Your task to perform on an android device: turn off location Image 0: 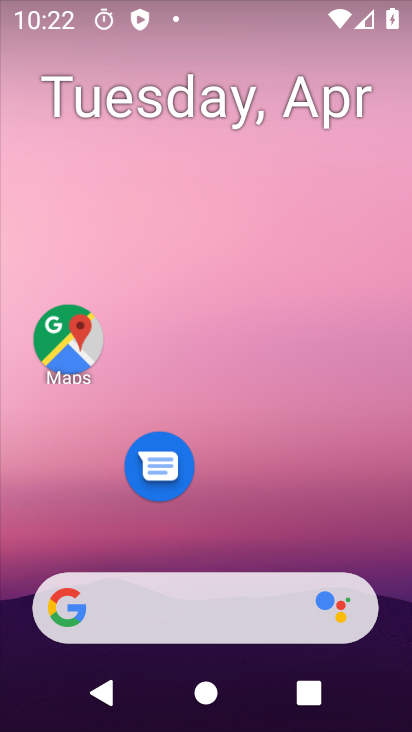
Step 0: drag from (315, 525) to (245, 163)
Your task to perform on an android device: turn off location Image 1: 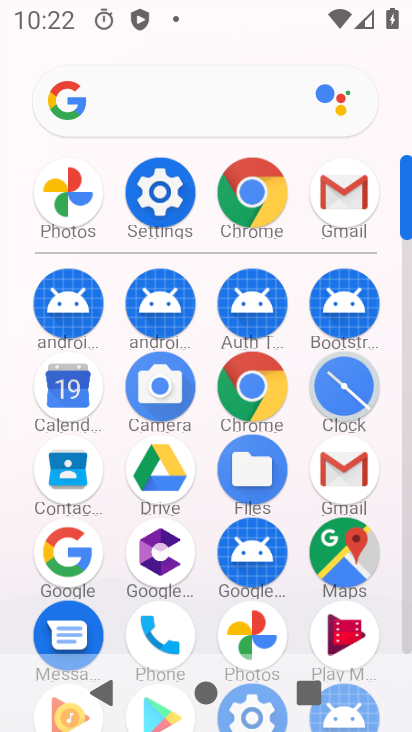
Step 1: click (179, 212)
Your task to perform on an android device: turn off location Image 2: 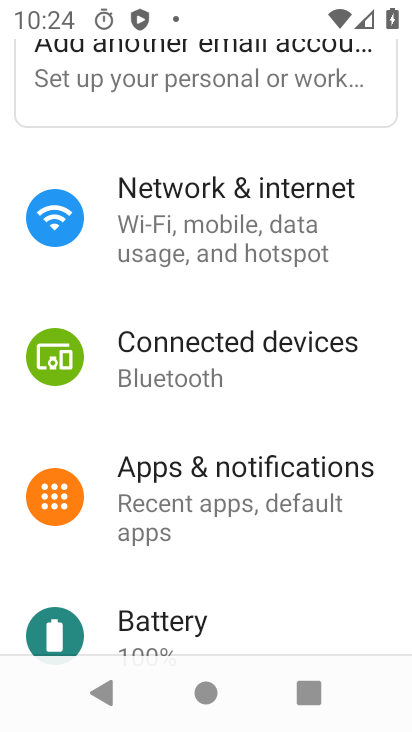
Step 2: click (226, 472)
Your task to perform on an android device: turn off location Image 3: 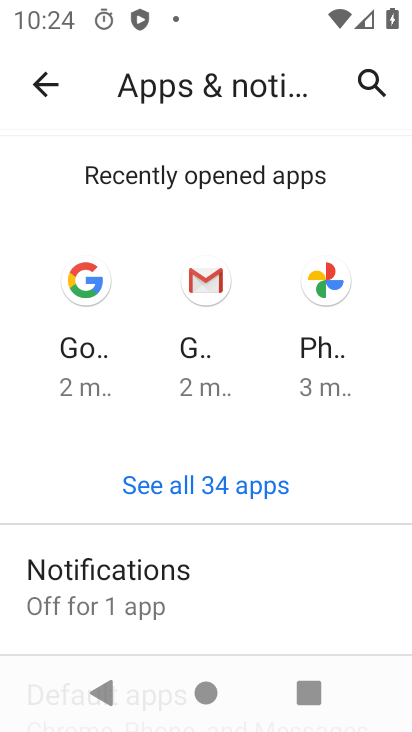
Step 3: drag from (150, 647) to (169, 338)
Your task to perform on an android device: turn off location Image 4: 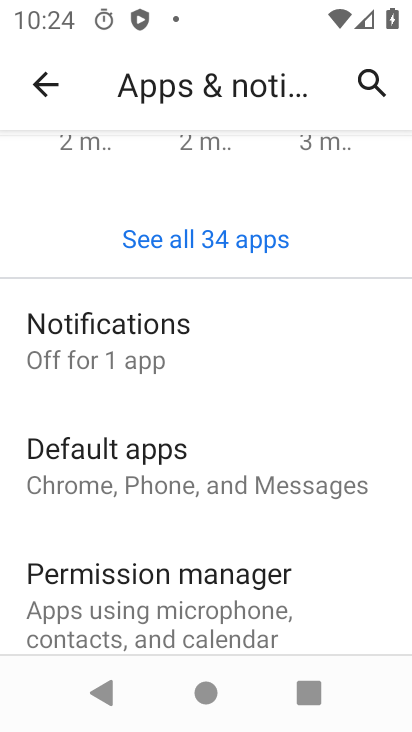
Step 4: click (85, 685)
Your task to perform on an android device: turn off location Image 5: 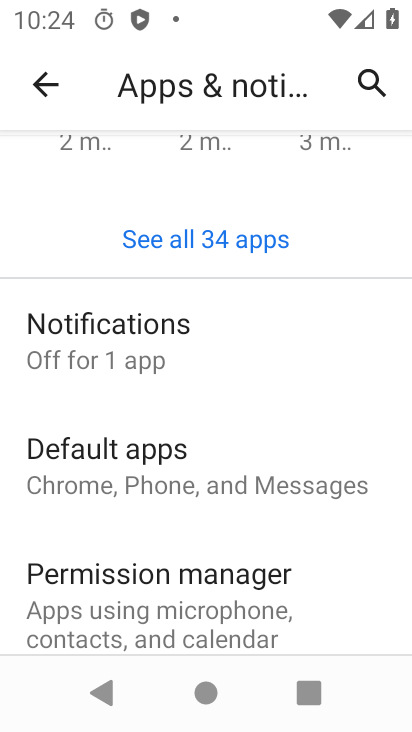
Step 5: click (94, 690)
Your task to perform on an android device: turn off location Image 6: 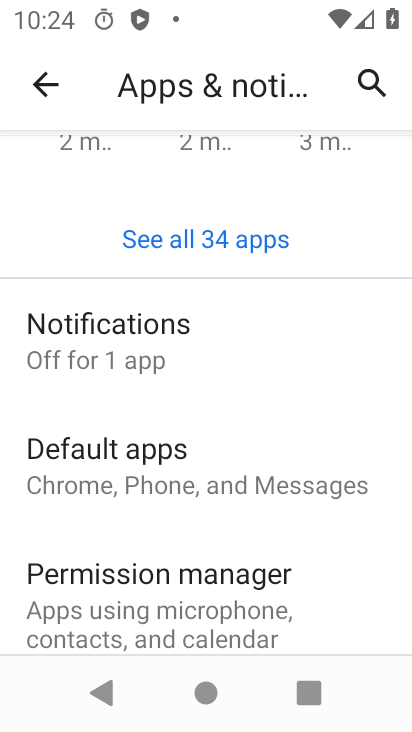
Step 6: click (112, 700)
Your task to perform on an android device: turn off location Image 7: 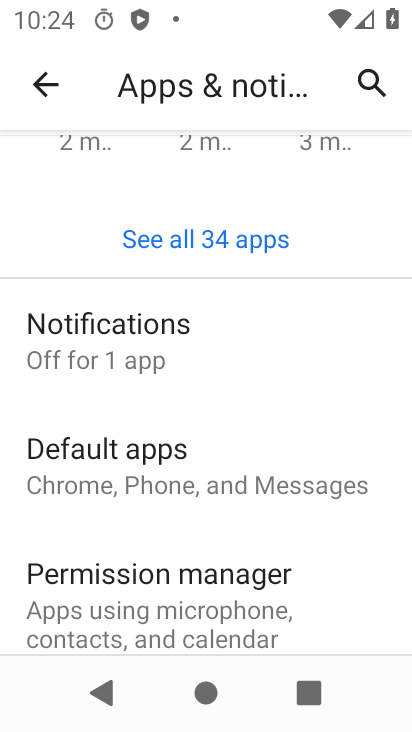
Step 7: click (112, 700)
Your task to perform on an android device: turn off location Image 8: 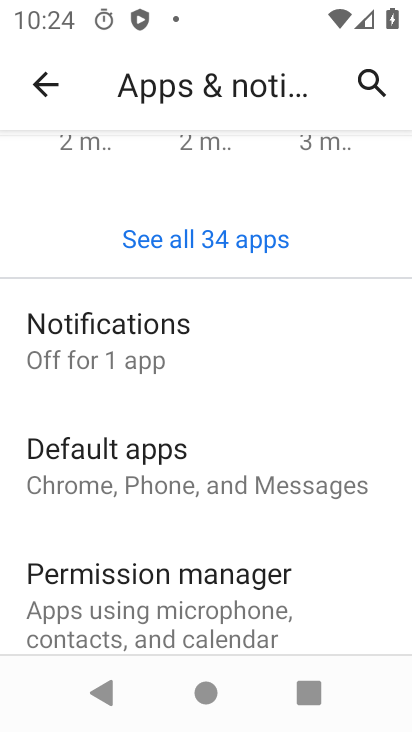
Step 8: press home button
Your task to perform on an android device: turn off location Image 9: 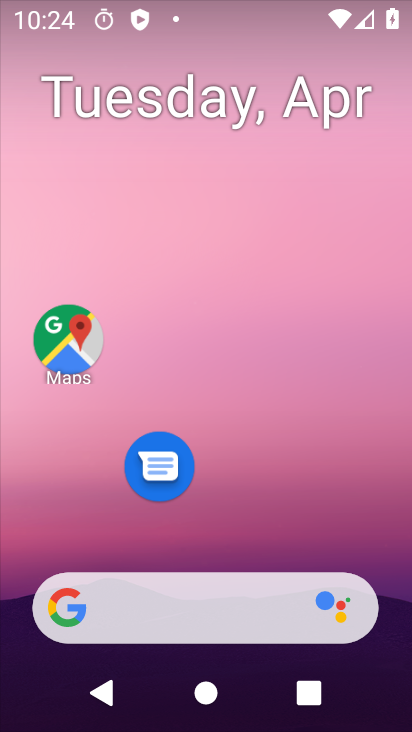
Step 9: drag from (216, 519) to (149, 158)
Your task to perform on an android device: turn off location Image 10: 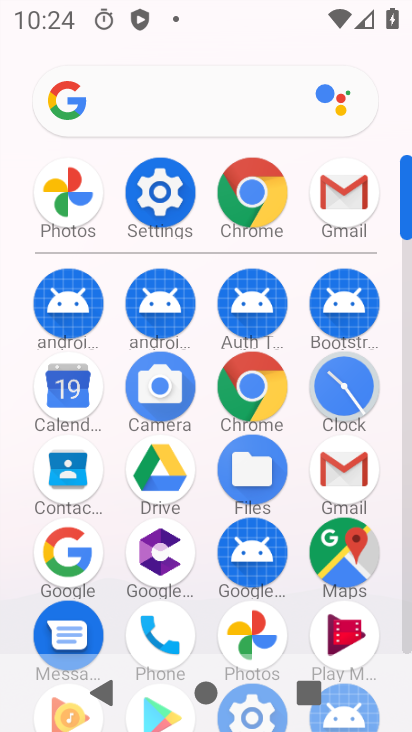
Step 10: click (171, 225)
Your task to perform on an android device: turn off location Image 11: 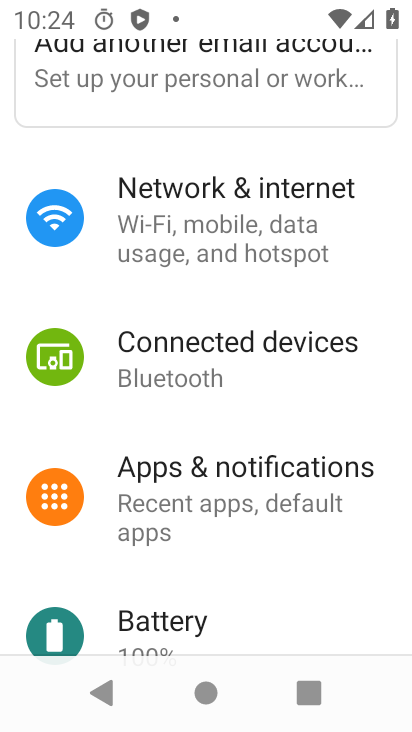
Step 11: drag from (190, 515) to (181, 348)
Your task to perform on an android device: turn off location Image 12: 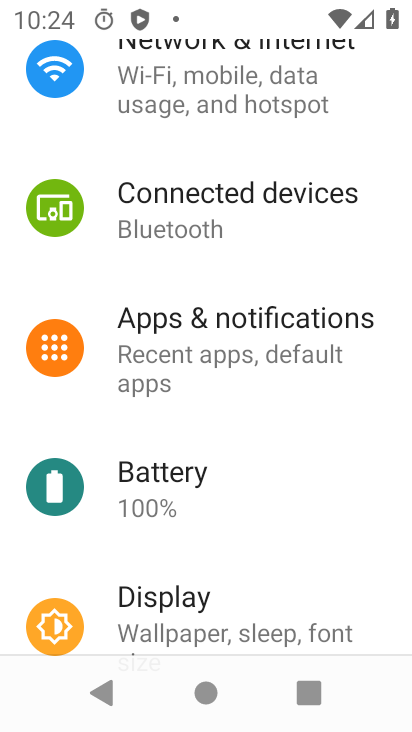
Step 12: drag from (162, 461) to (141, 94)
Your task to perform on an android device: turn off location Image 13: 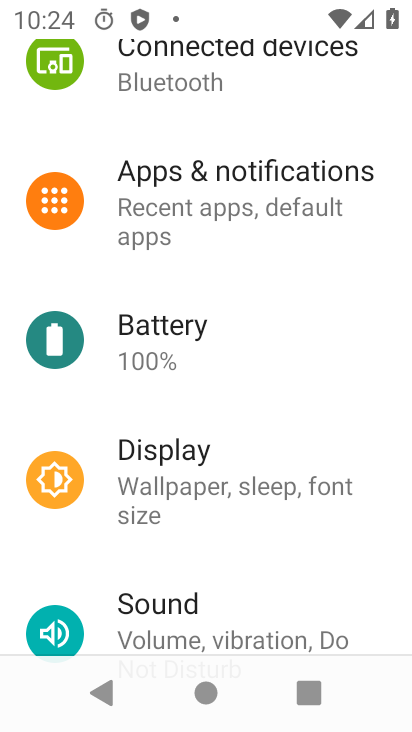
Step 13: drag from (177, 501) to (157, 195)
Your task to perform on an android device: turn off location Image 14: 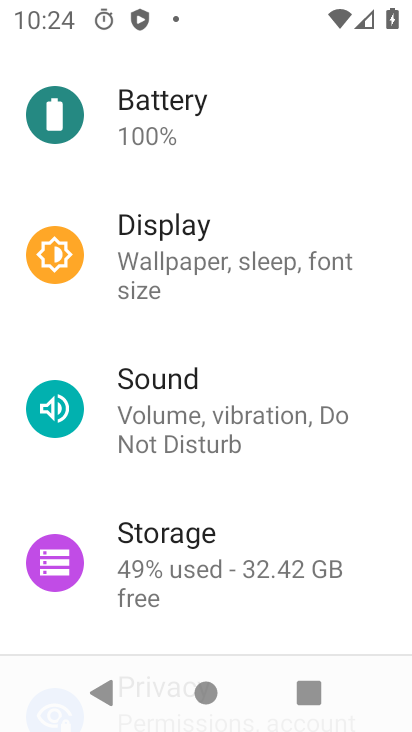
Step 14: drag from (161, 468) to (132, 143)
Your task to perform on an android device: turn off location Image 15: 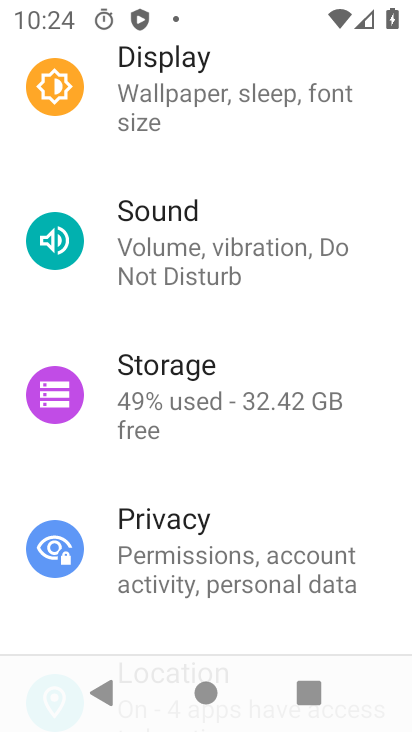
Step 15: drag from (191, 547) to (177, 154)
Your task to perform on an android device: turn off location Image 16: 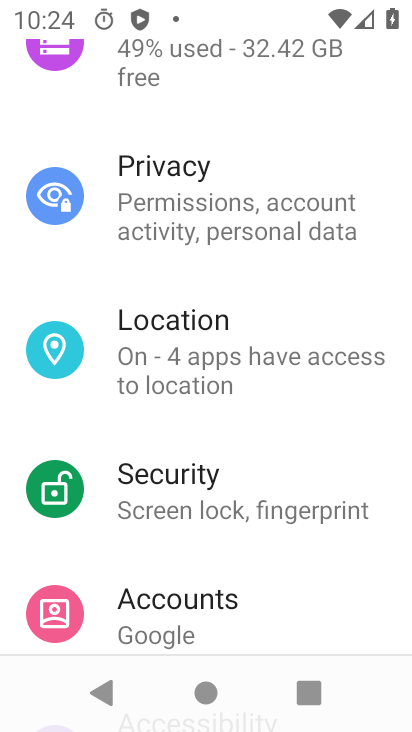
Step 16: click (197, 390)
Your task to perform on an android device: turn off location Image 17: 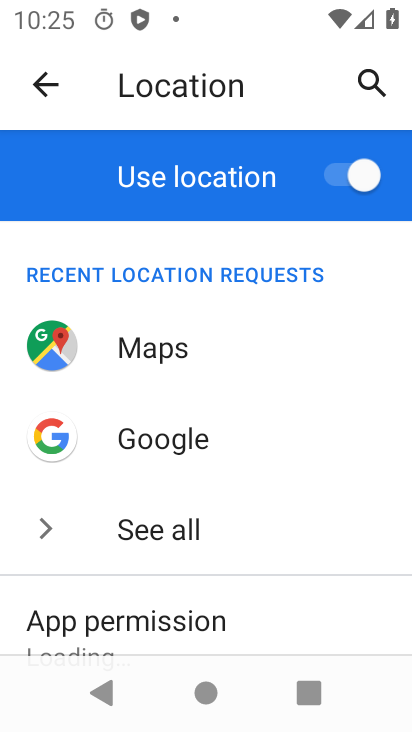
Step 17: click (313, 161)
Your task to perform on an android device: turn off location Image 18: 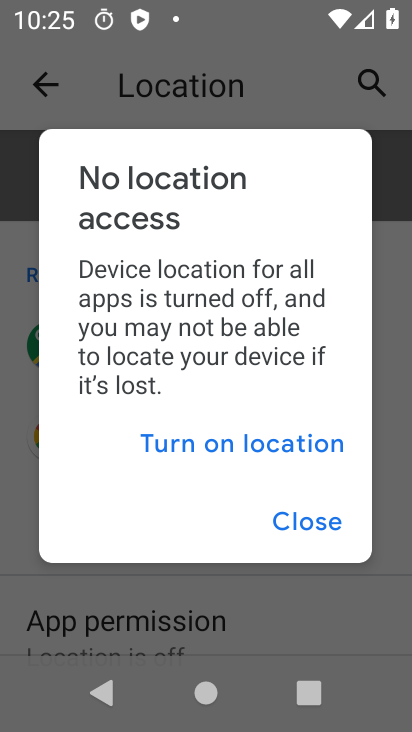
Step 18: click (276, 520)
Your task to perform on an android device: turn off location Image 19: 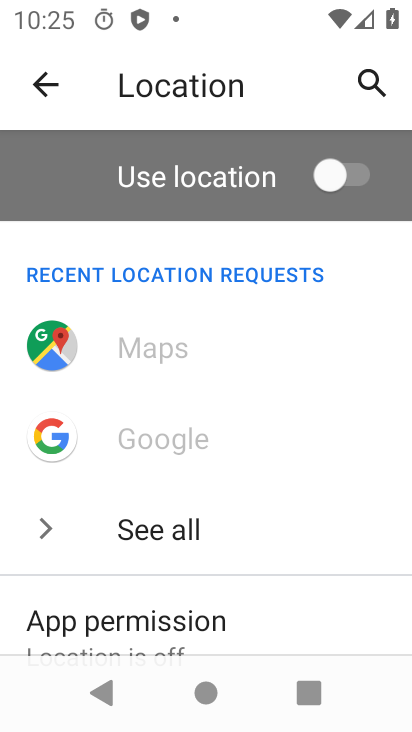
Step 19: task complete